Your task to perform on an android device: stop showing notifications on the lock screen Image 0: 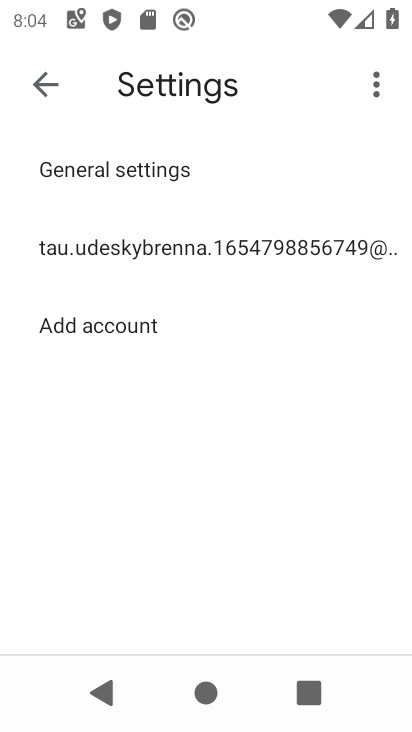
Step 0: press home button
Your task to perform on an android device: stop showing notifications on the lock screen Image 1: 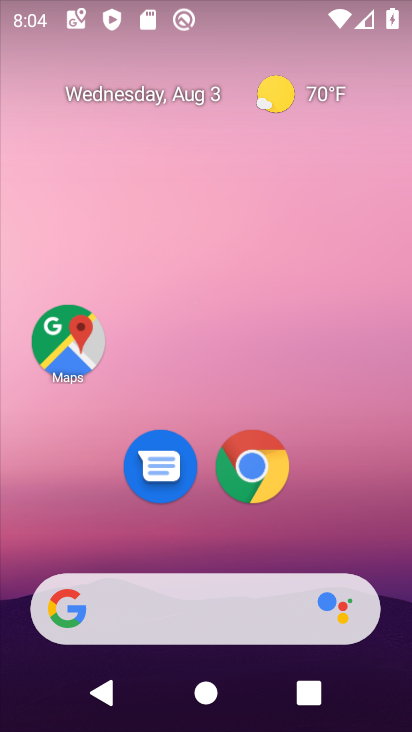
Step 1: drag from (365, 517) to (345, 133)
Your task to perform on an android device: stop showing notifications on the lock screen Image 2: 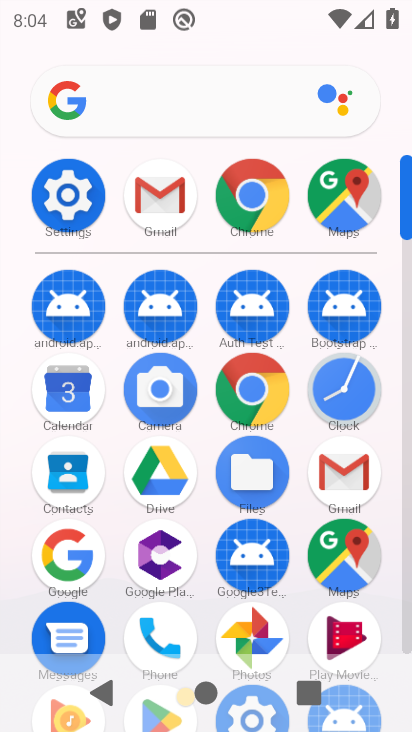
Step 2: click (70, 200)
Your task to perform on an android device: stop showing notifications on the lock screen Image 3: 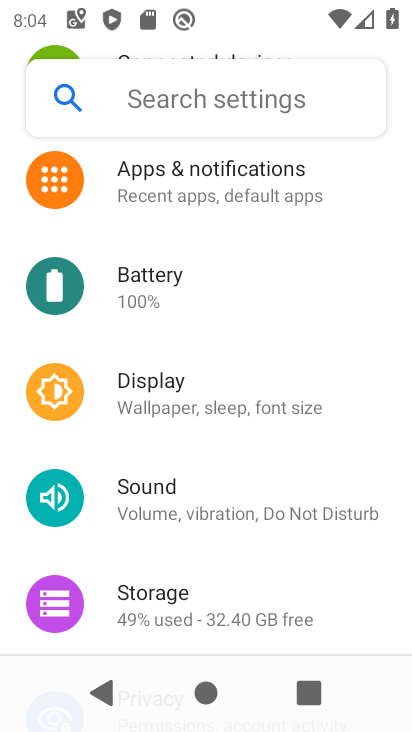
Step 3: click (141, 191)
Your task to perform on an android device: stop showing notifications on the lock screen Image 4: 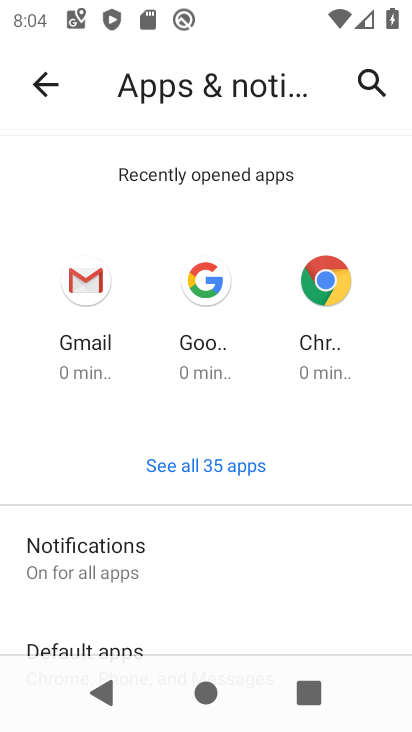
Step 4: click (124, 546)
Your task to perform on an android device: stop showing notifications on the lock screen Image 5: 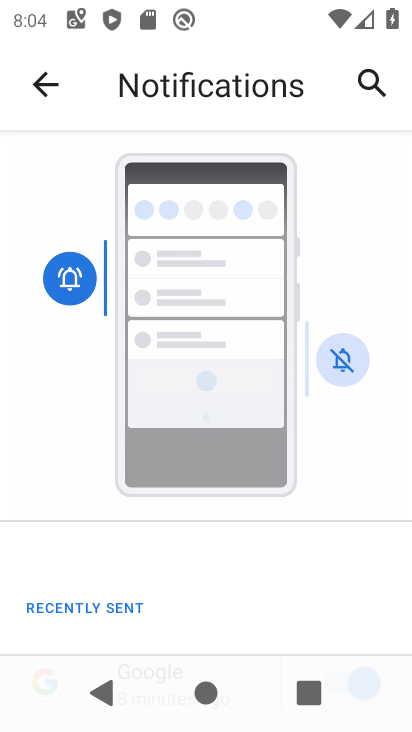
Step 5: drag from (278, 601) to (274, 327)
Your task to perform on an android device: stop showing notifications on the lock screen Image 6: 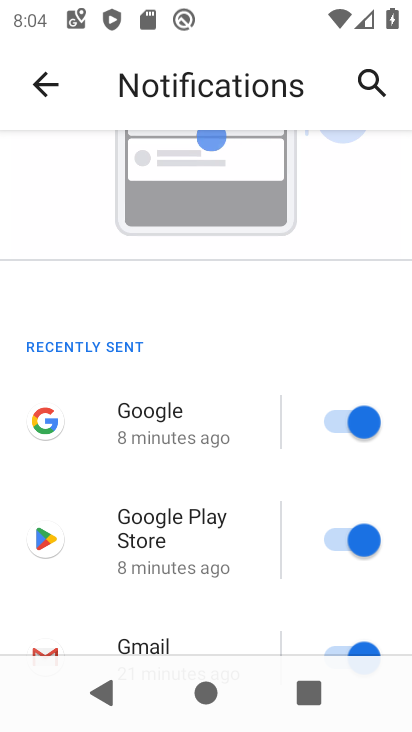
Step 6: drag from (270, 373) to (299, 132)
Your task to perform on an android device: stop showing notifications on the lock screen Image 7: 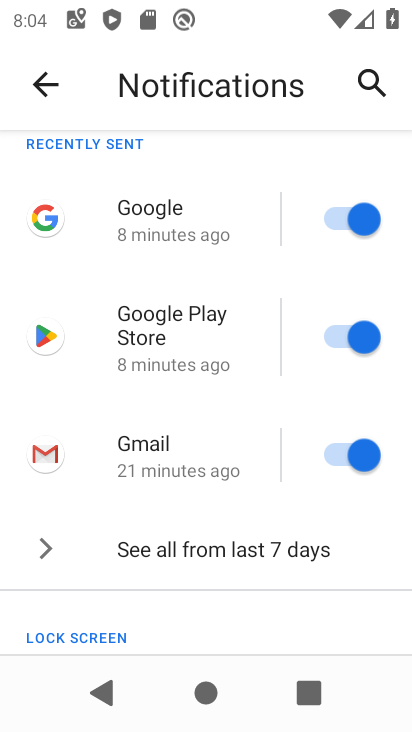
Step 7: drag from (263, 605) to (319, 271)
Your task to perform on an android device: stop showing notifications on the lock screen Image 8: 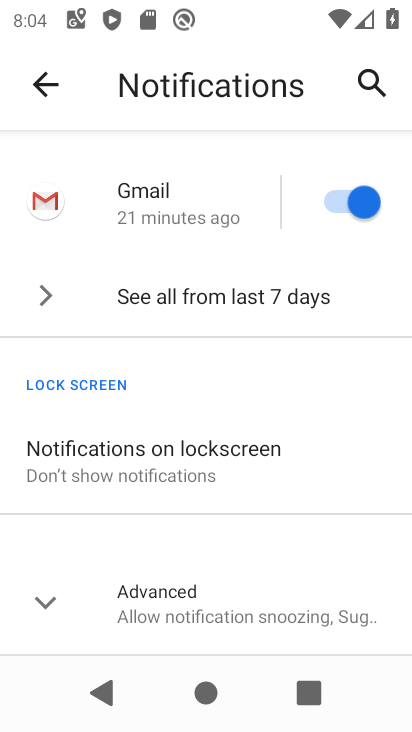
Step 8: click (193, 467)
Your task to perform on an android device: stop showing notifications on the lock screen Image 9: 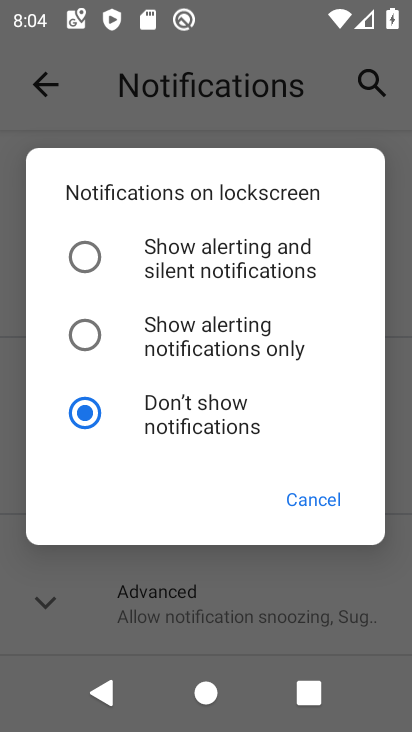
Step 9: task complete